Your task to perform on an android device: set the timer Image 0: 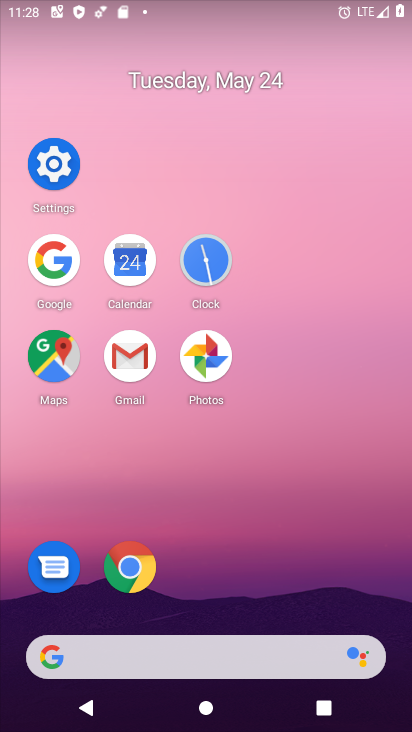
Step 0: click (222, 259)
Your task to perform on an android device: set the timer Image 1: 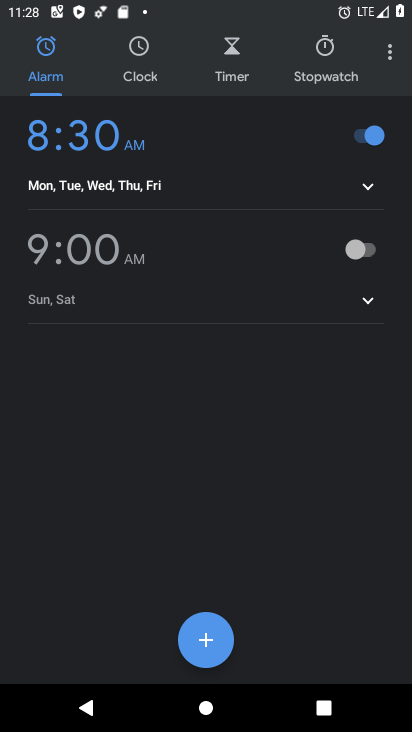
Step 1: click (223, 68)
Your task to perform on an android device: set the timer Image 2: 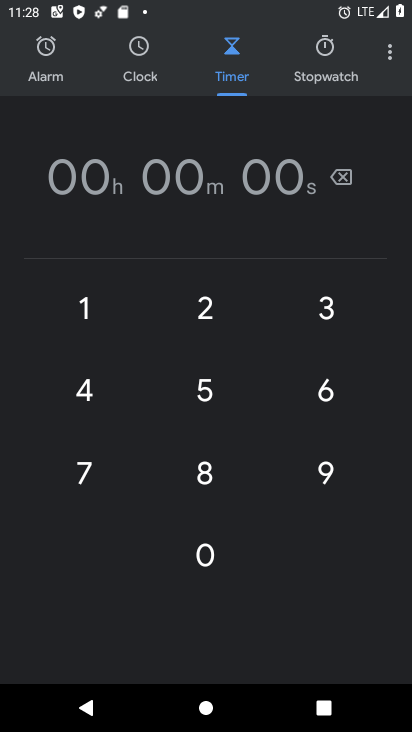
Step 2: click (205, 314)
Your task to perform on an android device: set the timer Image 3: 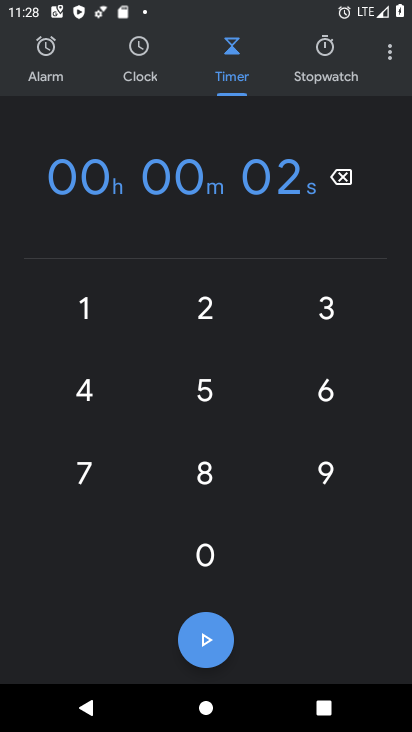
Step 3: click (222, 317)
Your task to perform on an android device: set the timer Image 4: 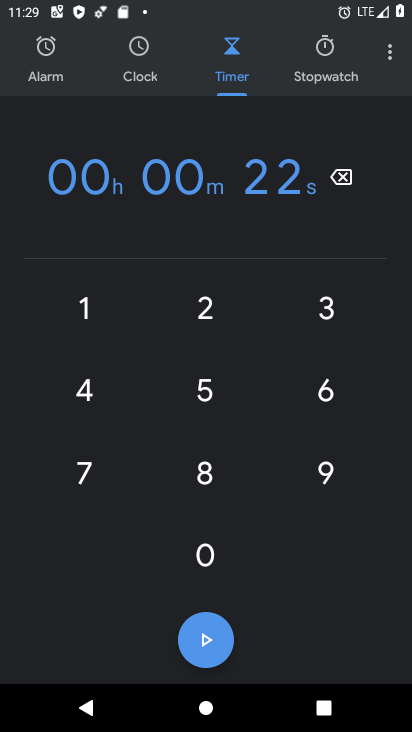
Step 4: click (213, 628)
Your task to perform on an android device: set the timer Image 5: 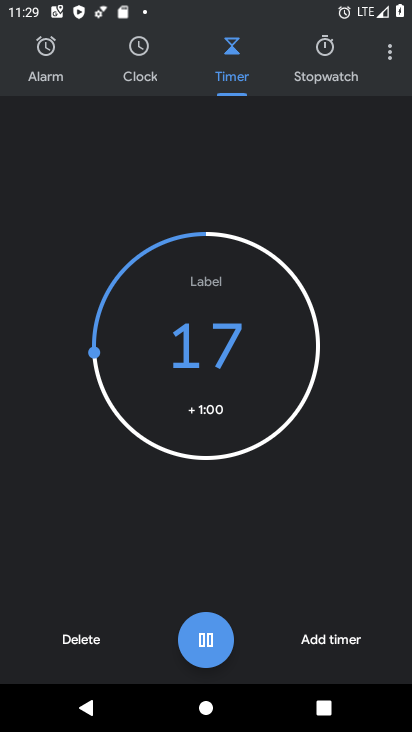
Step 5: task complete